Your task to perform on an android device: empty trash in the gmail app Image 0: 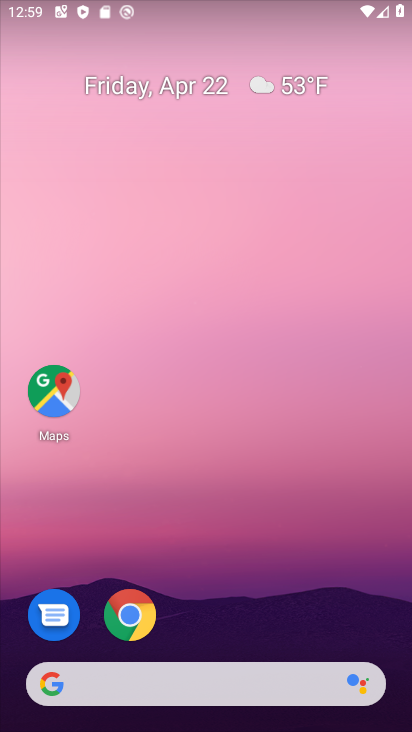
Step 0: drag from (341, 640) to (319, 0)
Your task to perform on an android device: empty trash in the gmail app Image 1: 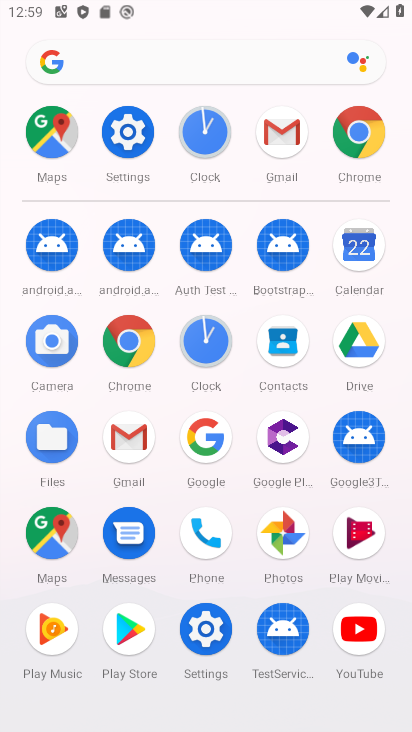
Step 1: click (283, 132)
Your task to perform on an android device: empty trash in the gmail app Image 2: 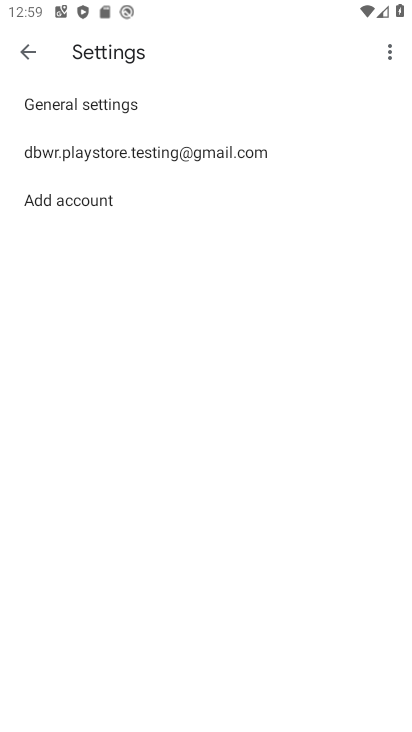
Step 2: click (26, 49)
Your task to perform on an android device: empty trash in the gmail app Image 3: 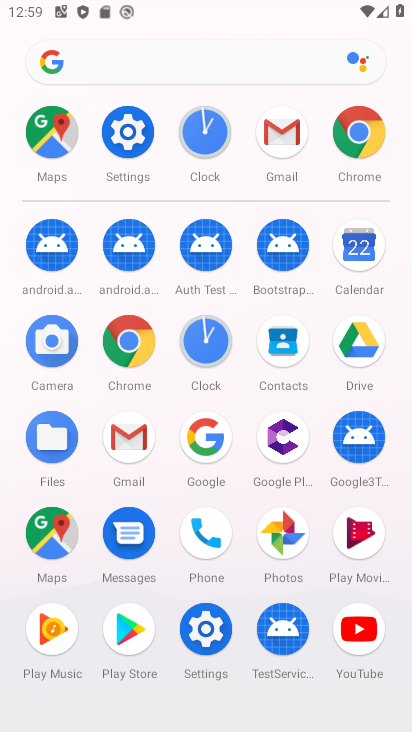
Step 3: click (275, 135)
Your task to perform on an android device: empty trash in the gmail app Image 4: 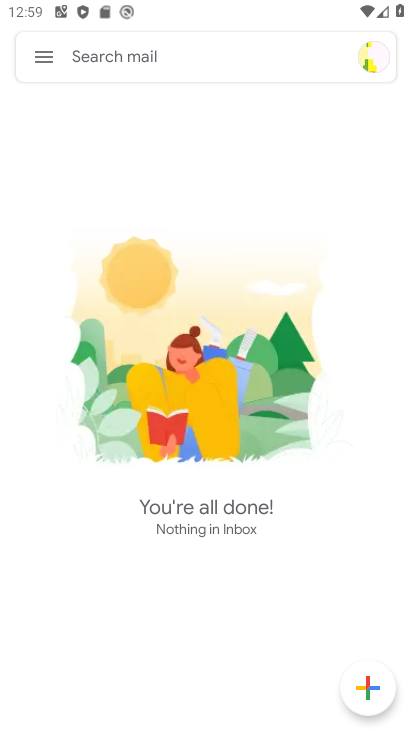
Step 4: click (46, 60)
Your task to perform on an android device: empty trash in the gmail app Image 5: 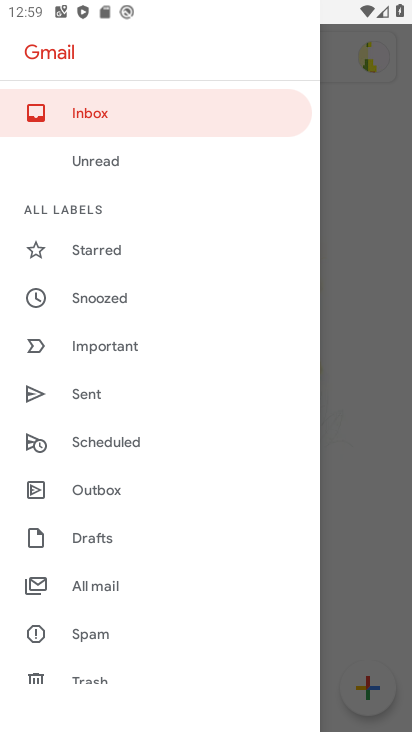
Step 5: drag from (136, 625) to (133, 515)
Your task to perform on an android device: empty trash in the gmail app Image 6: 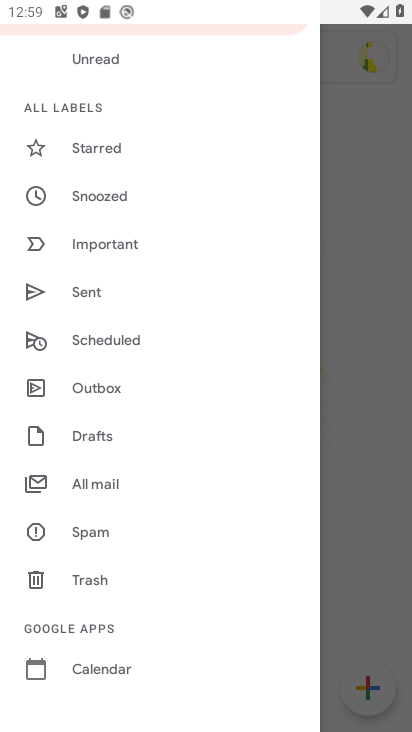
Step 6: click (94, 577)
Your task to perform on an android device: empty trash in the gmail app Image 7: 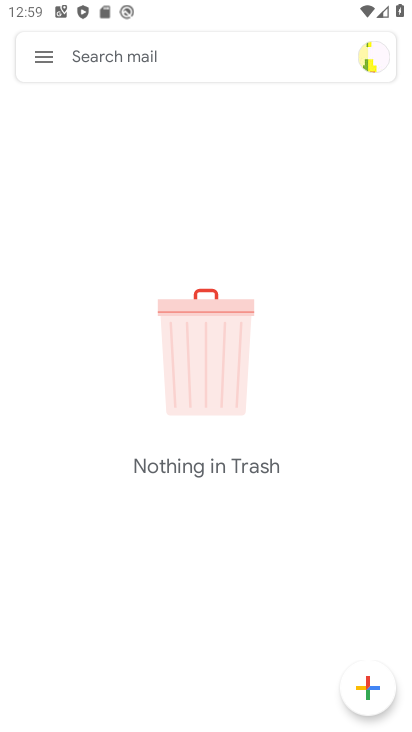
Step 7: task complete